Your task to perform on an android device: open app "PlayWell" (install if not already installed) Image 0: 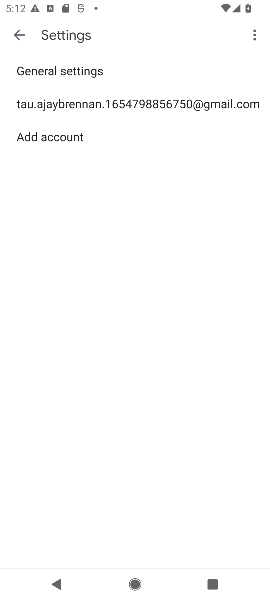
Step 0: press home button
Your task to perform on an android device: open app "PlayWell" (install if not already installed) Image 1: 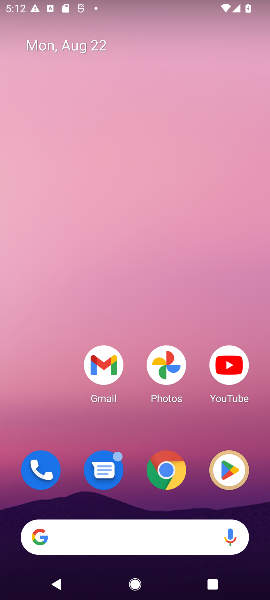
Step 1: click (232, 462)
Your task to perform on an android device: open app "PlayWell" (install if not already installed) Image 2: 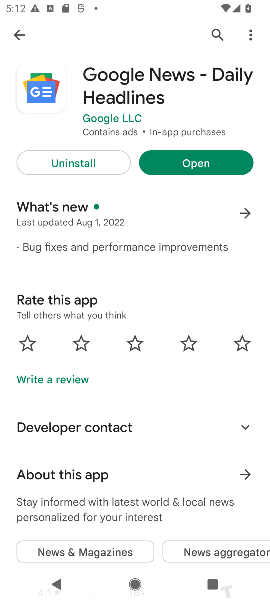
Step 2: click (19, 35)
Your task to perform on an android device: open app "PlayWell" (install if not already installed) Image 3: 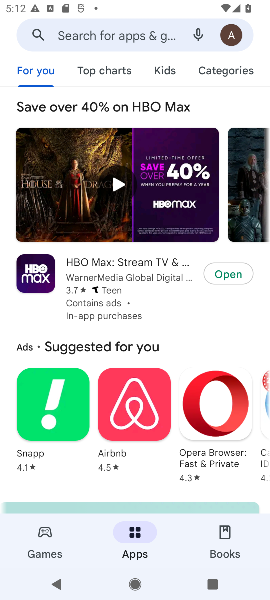
Step 3: click (88, 29)
Your task to perform on an android device: open app "PlayWell" (install if not already installed) Image 4: 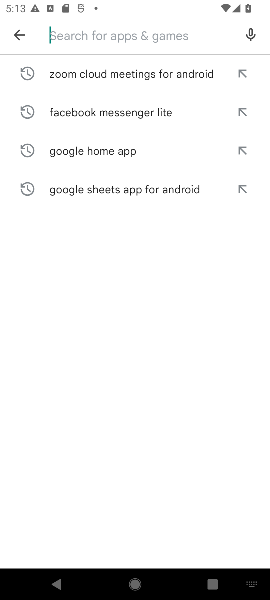
Step 4: type "play well "
Your task to perform on an android device: open app "PlayWell" (install if not already installed) Image 5: 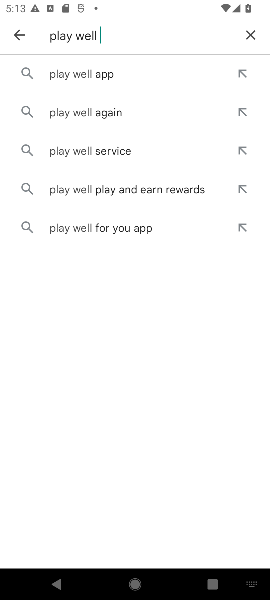
Step 5: click (107, 71)
Your task to perform on an android device: open app "PlayWell" (install if not already installed) Image 6: 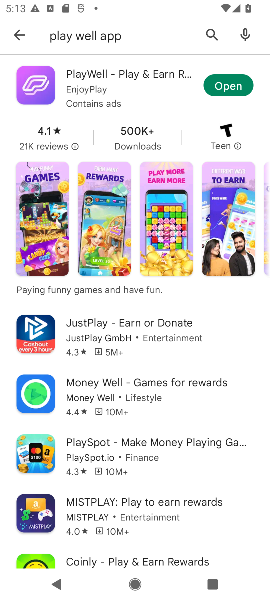
Step 6: click (223, 79)
Your task to perform on an android device: open app "PlayWell" (install if not already installed) Image 7: 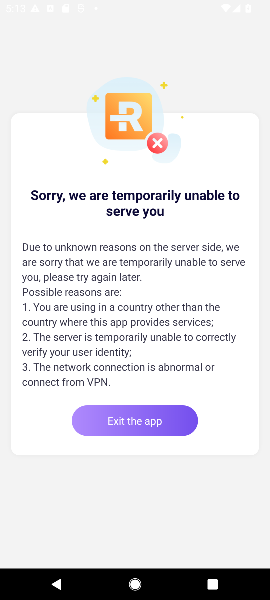
Step 7: click (150, 421)
Your task to perform on an android device: open app "PlayWell" (install if not already installed) Image 8: 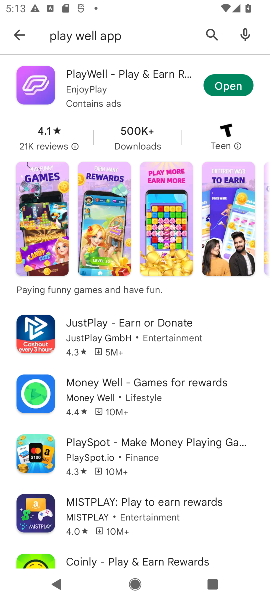
Step 8: click (234, 88)
Your task to perform on an android device: open app "PlayWell" (install if not already installed) Image 9: 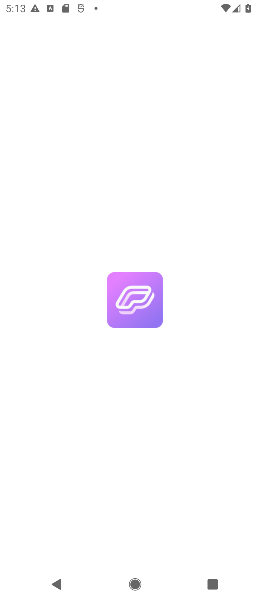
Step 9: task complete